Your task to perform on an android device: toggle notification dots Image 0: 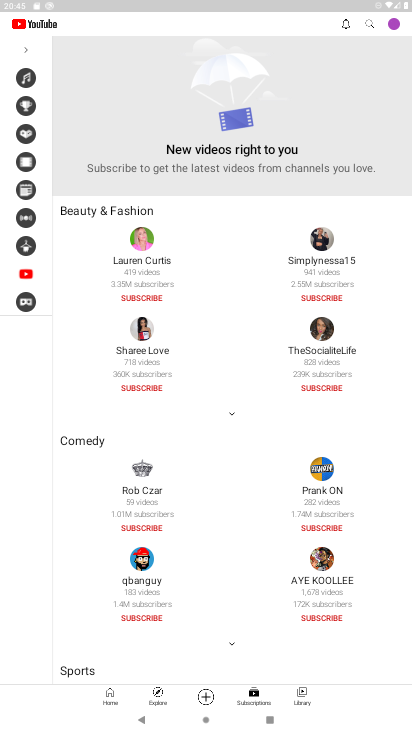
Step 0: press home button
Your task to perform on an android device: toggle notification dots Image 1: 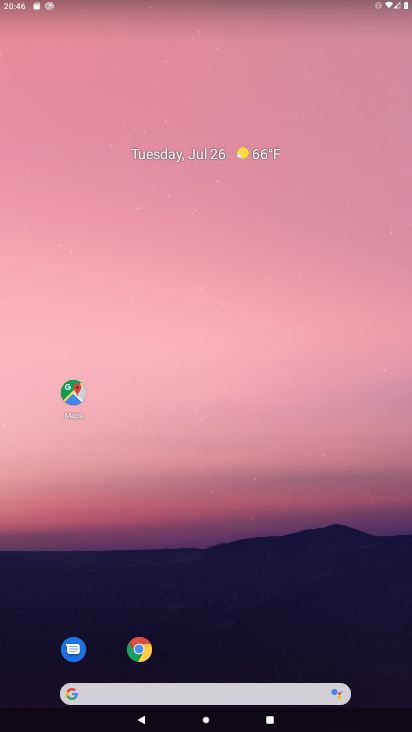
Step 1: drag from (91, 703) to (168, 219)
Your task to perform on an android device: toggle notification dots Image 2: 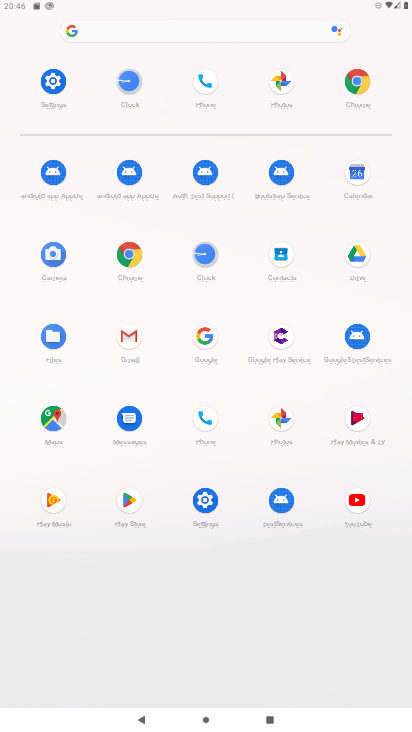
Step 2: click (47, 85)
Your task to perform on an android device: toggle notification dots Image 3: 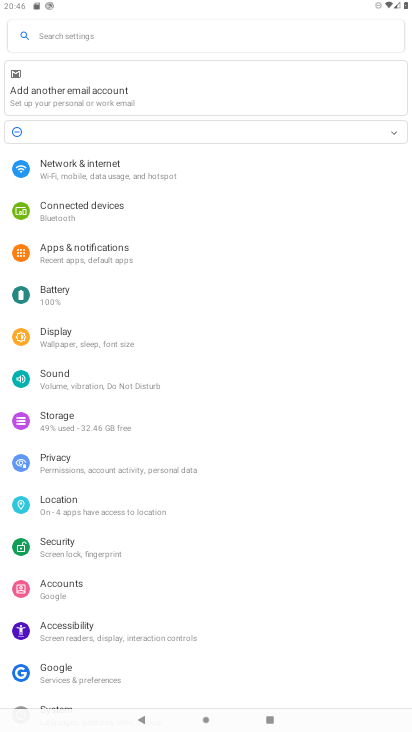
Step 3: click (90, 254)
Your task to perform on an android device: toggle notification dots Image 4: 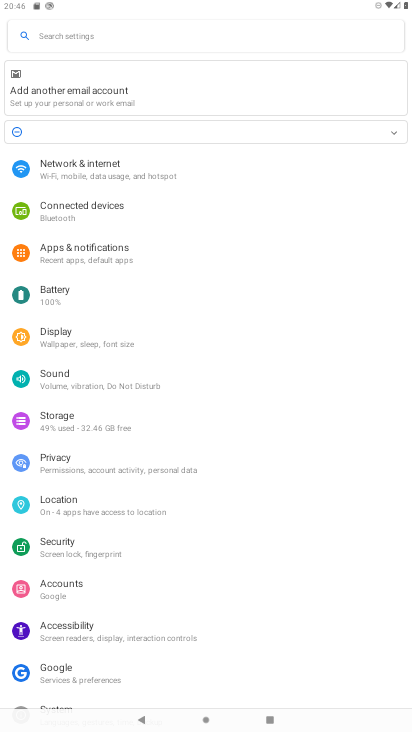
Step 4: click (90, 254)
Your task to perform on an android device: toggle notification dots Image 5: 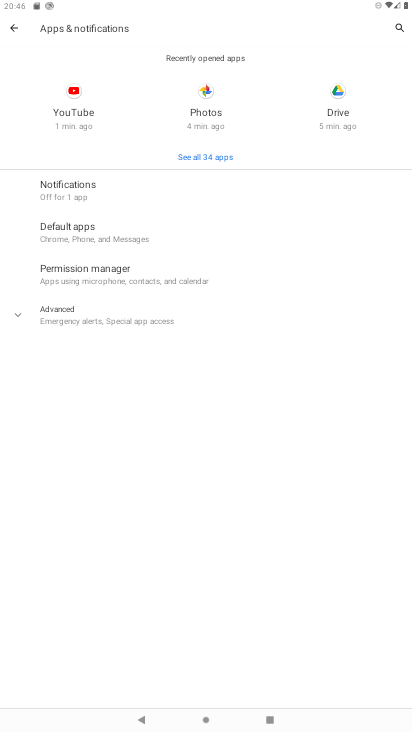
Step 5: click (92, 194)
Your task to perform on an android device: toggle notification dots Image 6: 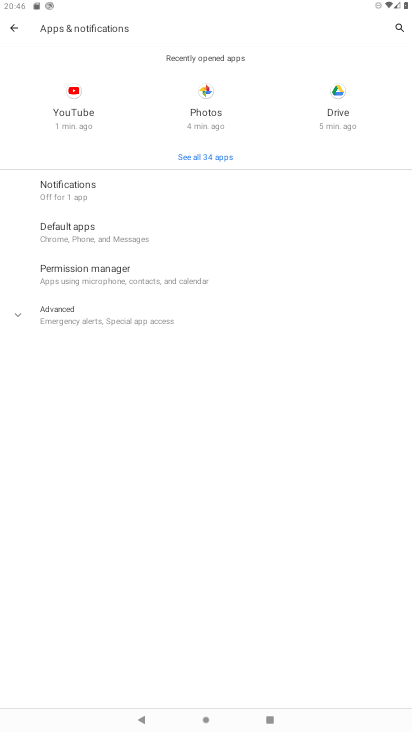
Step 6: click (92, 194)
Your task to perform on an android device: toggle notification dots Image 7: 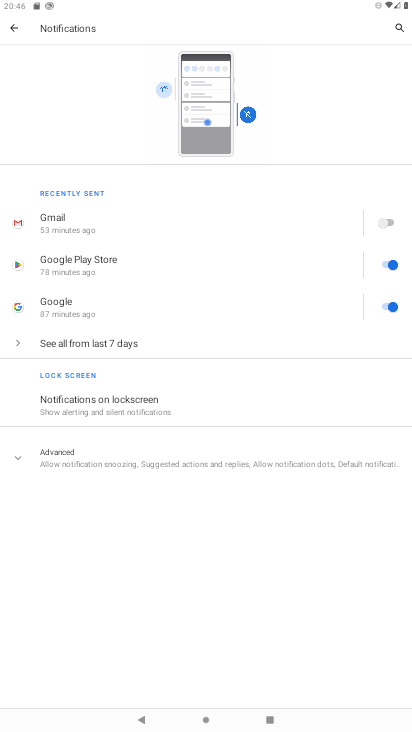
Step 7: click (194, 457)
Your task to perform on an android device: toggle notification dots Image 8: 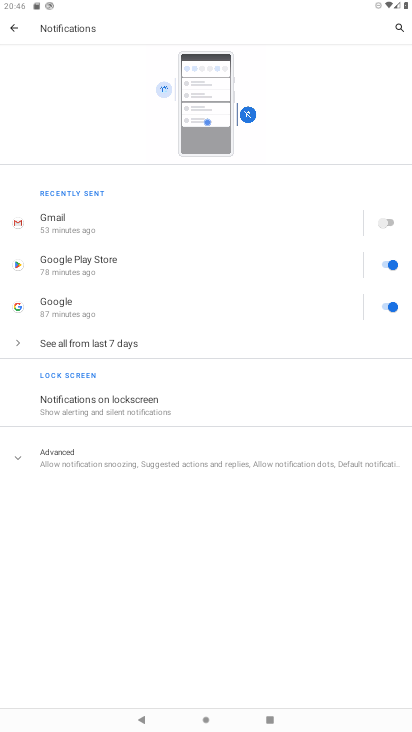
Step 8: click (194, 457)
Your task to perform on an android device: toggle notification dots Image 9: 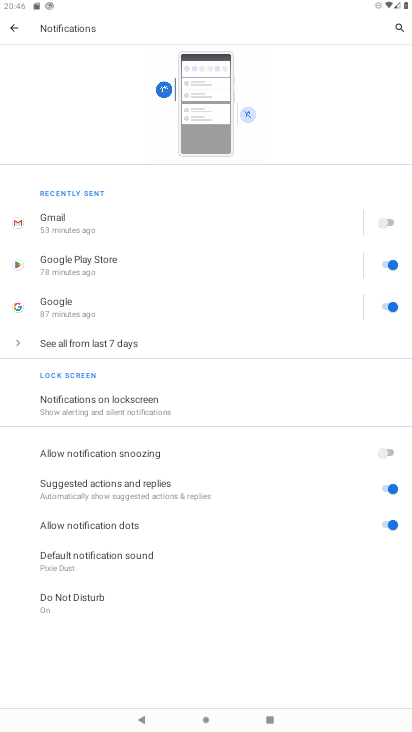
Step 9: click (390, 525)
Your task to perform on an android device: toggle notification dots Image 10: 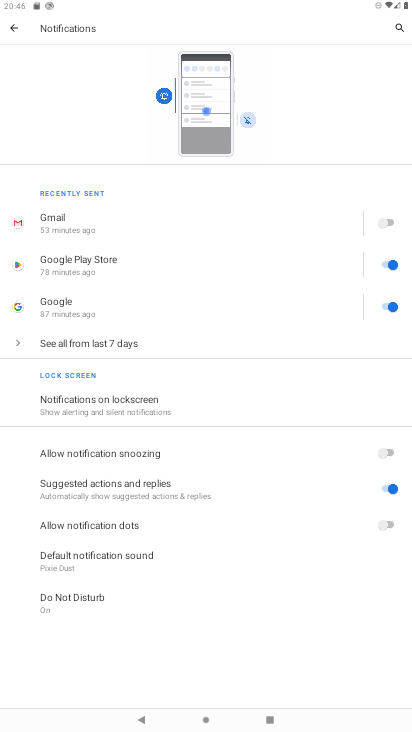
Step 10: task complete